Your task to perform on an android device: Open network settings Image 0: 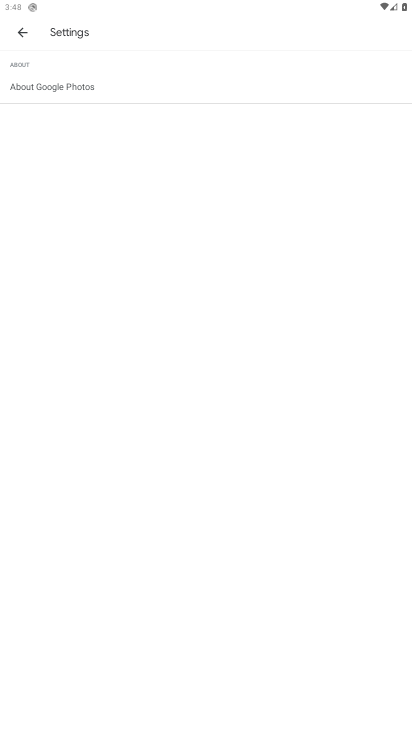
Step 0: click (112, 698)
Your task to perform on an android device: Open network settings Image 1: 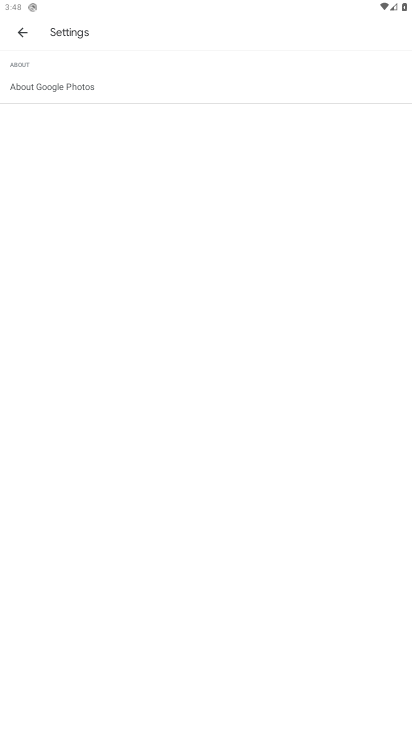
Step 1: press home button
Your task to perform on an android device: Open network settings Image 2: 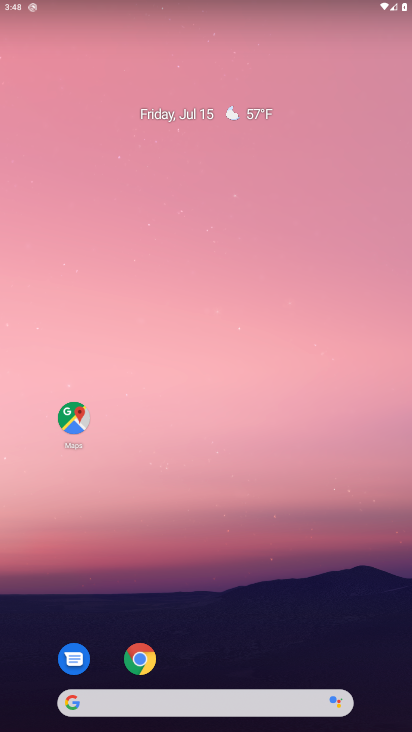
Step 2: drag from (16, 665) to (236, 88)
Your task to perform on an android device: Open network settings Image 3: 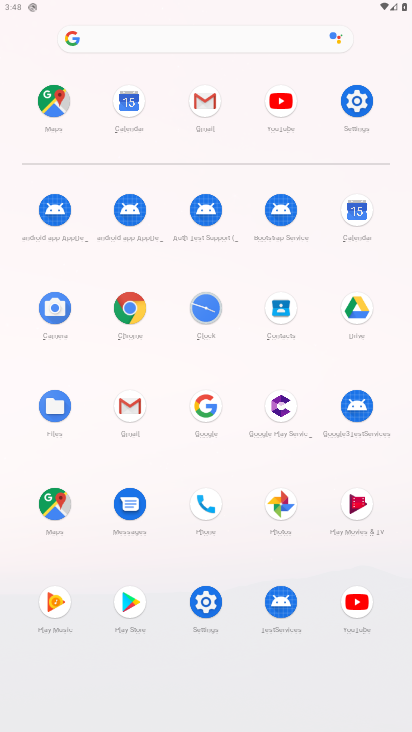
Step 3: click (198, 603)
Your task to perform on an android device: Open network settings Image 4: 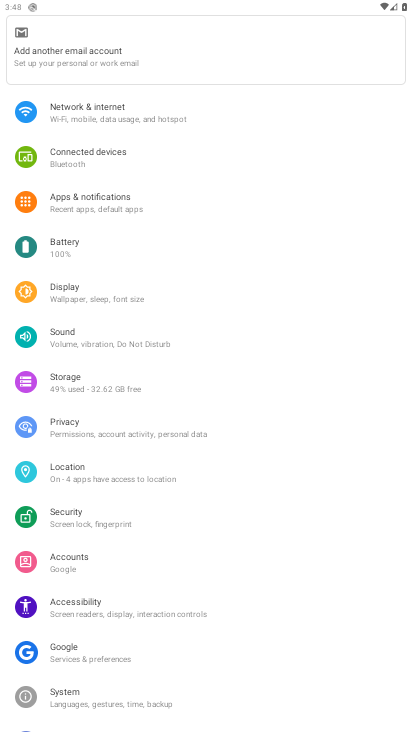
Step 4: click (99, 111)
Your task to perform on an android device: Open network settings Image 5: 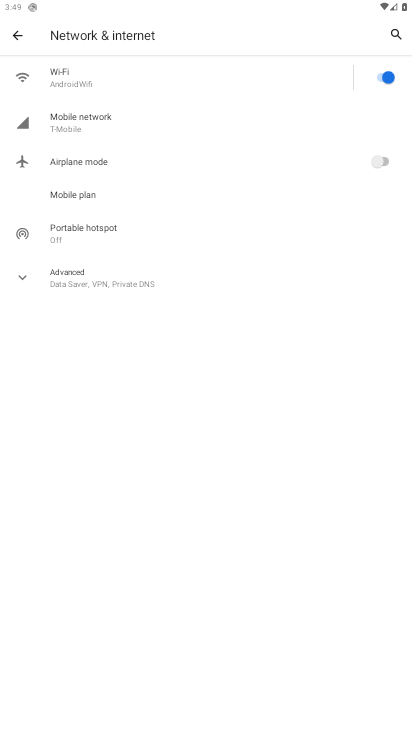
Step 5: task complete